Your task to perform on an android device: Go to Google maps Image 0: 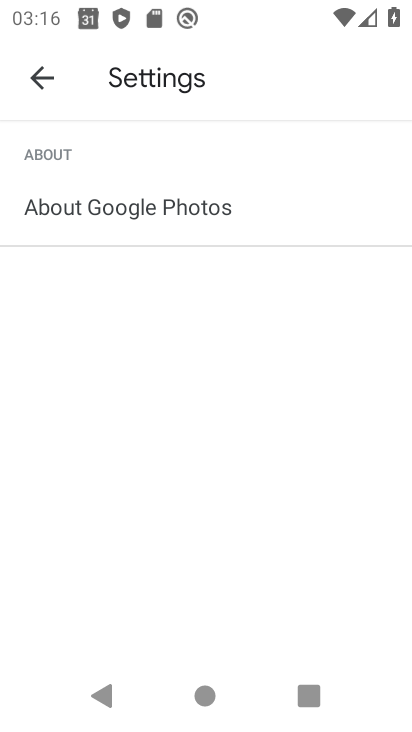
Step 0: click (43, 73)
Your task to perform on an android device: Go to Google maps Image 1: 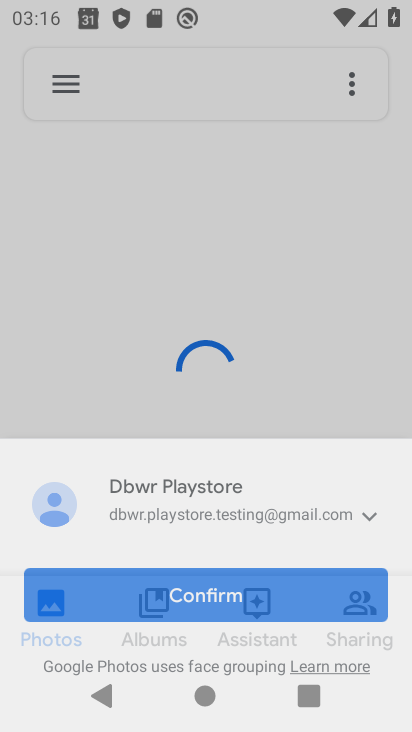
Step 1: press back button
Your task to perform on an android device: Go to Google maps Image 2: 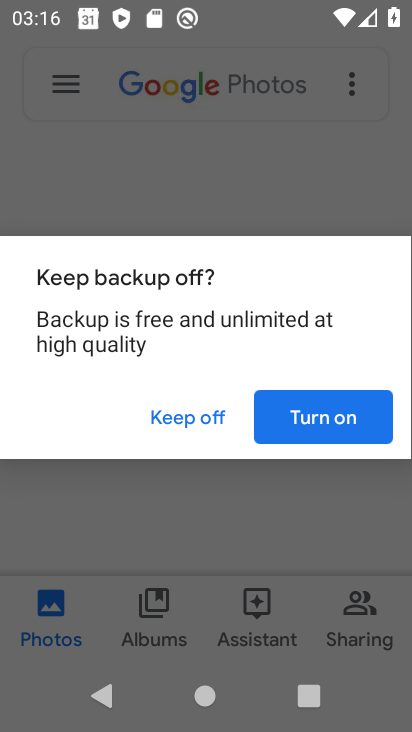
Step 2: click (260, 554)
Your task to perform on an android device: Go to Google maps Image 3: 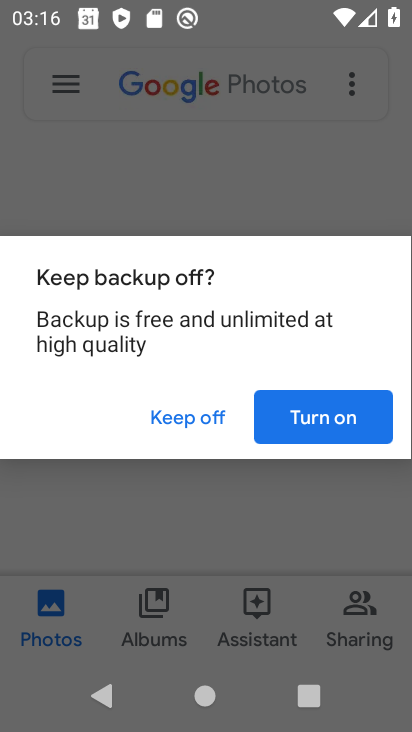
Step 3: click (214, 415)
Your task to perform on an android device: Go to Google maps Image 4: 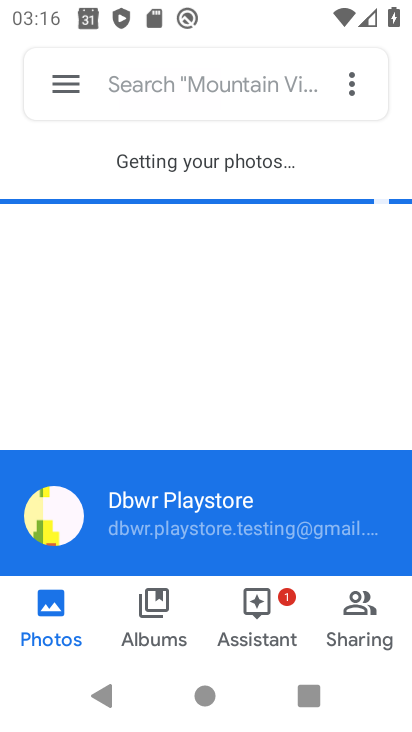
Step 4: press back button
Your task to perform on an android device: Go to Google maps Image 5: 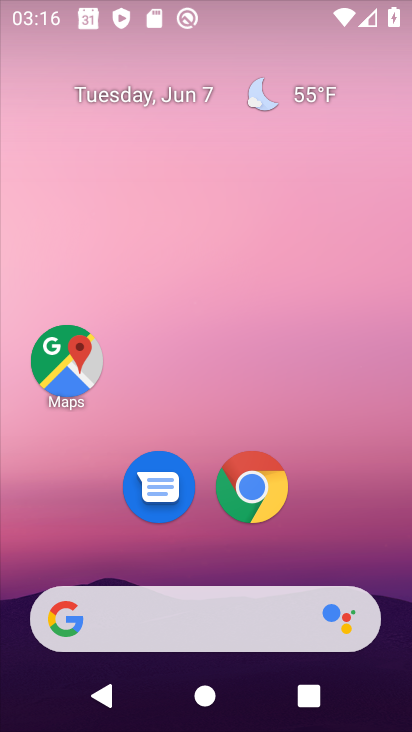
Step 5: drag from (263, 581) to (308, 28)
Your task to perform on an android device: Go to Google maps Image 6: 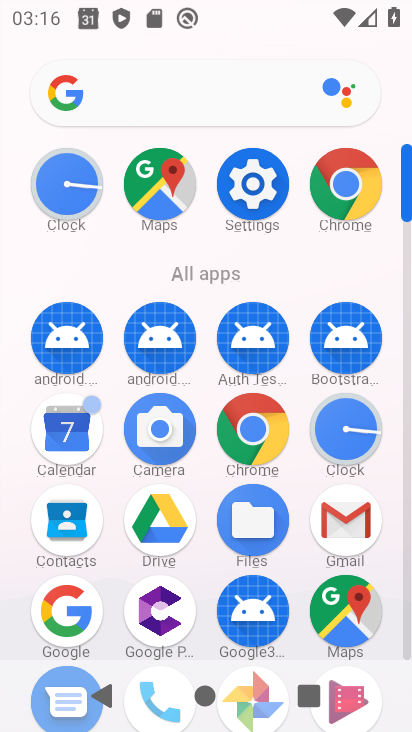
Step 6: click (325, 605)
Your task to perform on an android device: Go to Google maps Image 7: 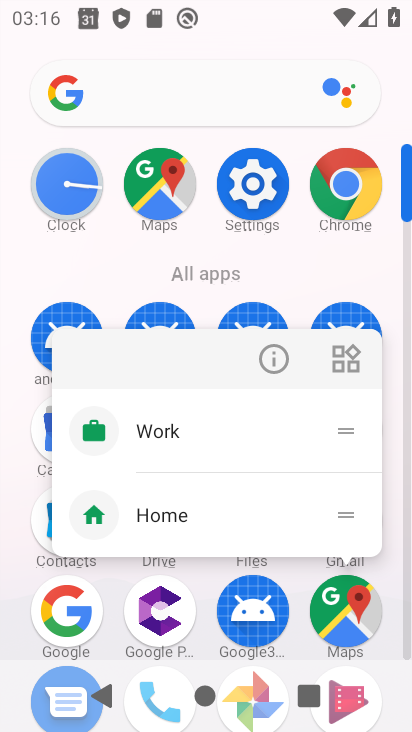
Step 7: click (346, 616)
Your task to perform on an android device: Go to Google maps Image 8: 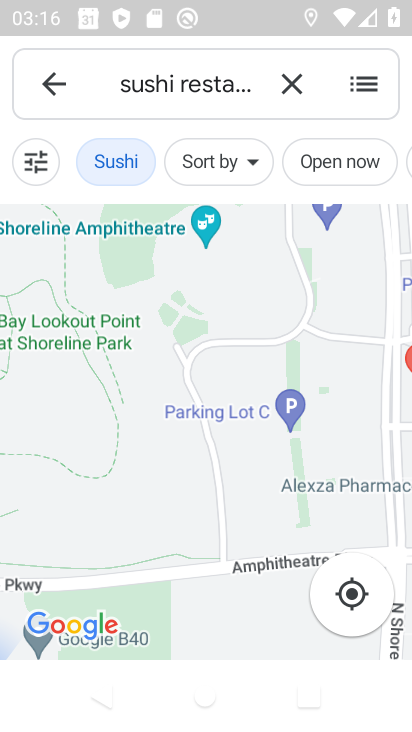
Step 8: task complete